Your task to perform on an android device: check the backup settings in the google photos Image 0: 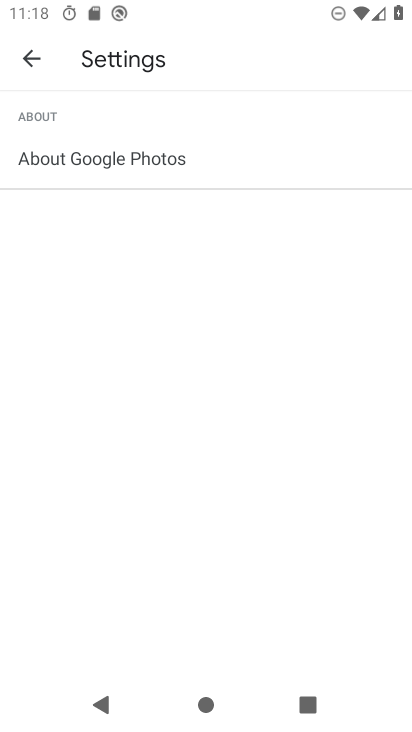
Step 0: press home button
Your task to perform on an android device: check the backup settings in the google photos Image 1: 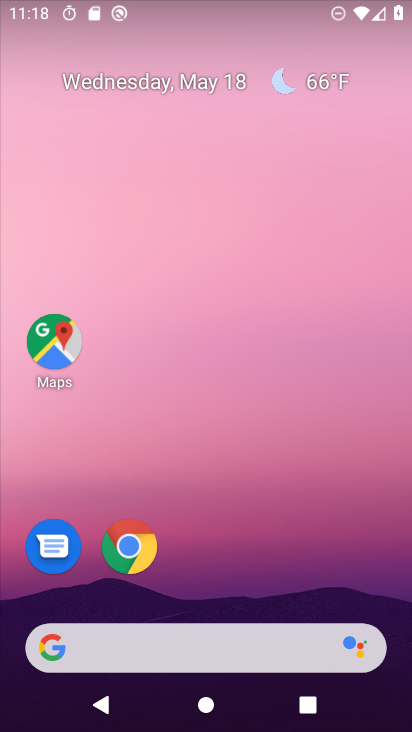
Step 1: drag from (204, 609) to (343, 74)
Your task to perform on an android device: check the backup settings in the google photos Image 2: 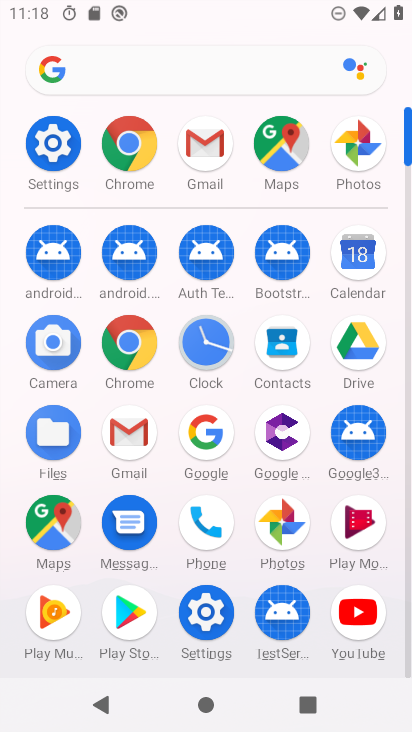
Step 2: click (299, 518)
Your task to perform on an android device: check the backup settings in the google photos Image 3: 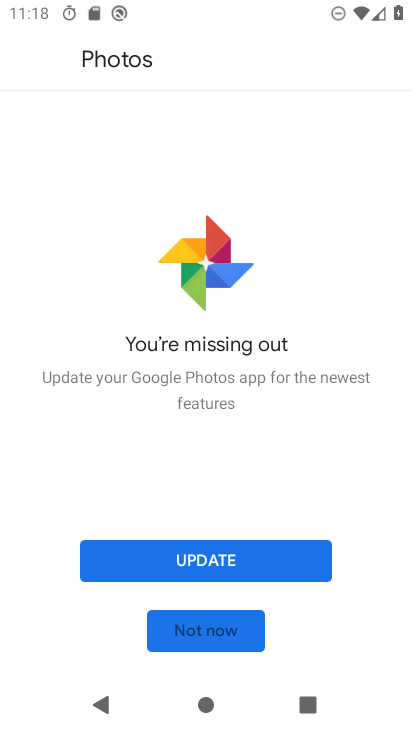
Step 3: click (191, 633)
Your task to perform on an android device: check the backup settings in the google photos Image 4: 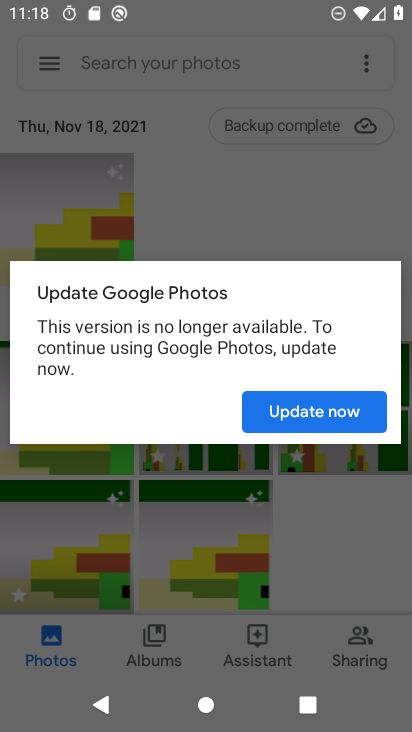
Step 4: click (309, 410)
Your task to perform on an android device: check the backup settings in the google photos Image 5: 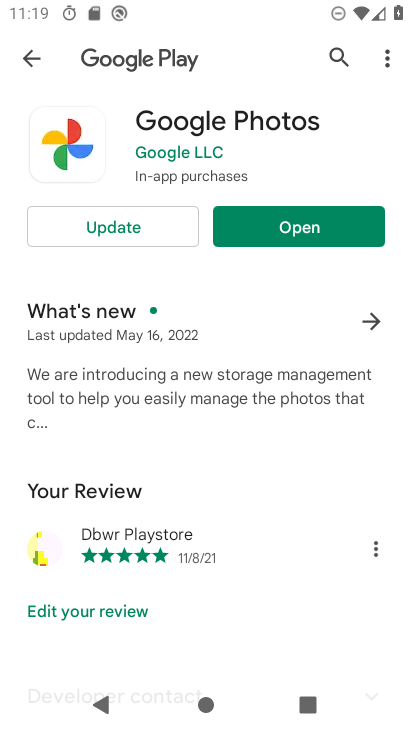
Step 5: click (278, 229)
Your task to perform on an android device: check the backup settings in the google photos Image 6: 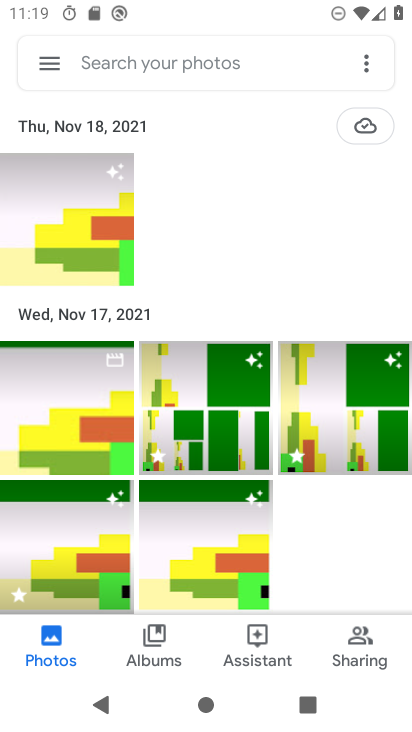
Step 6: click (368, 50)
Your task to perform on an android device: check the backup settings in the google photos Image 7: 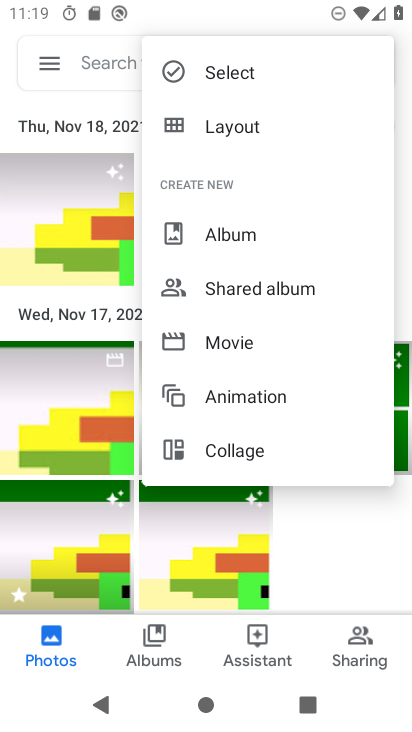
Step 7: click (65, 121)
Your task to perform on an android device: check the backup settings in the google photos Image 8: 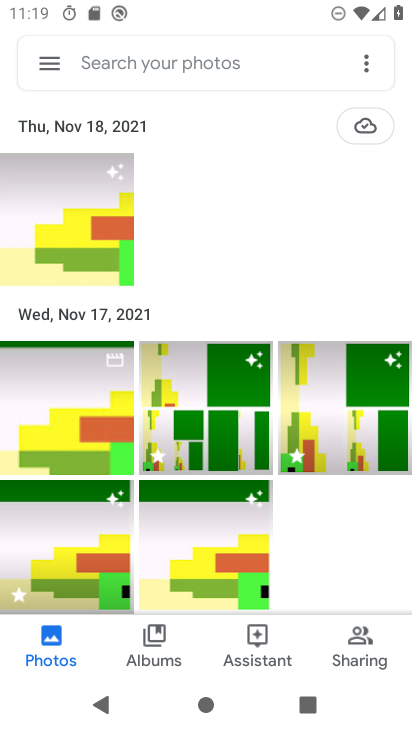
Step 8: click (48, 69)
Your task to perform on an android device: check the backup settings in the google photos Image 9: 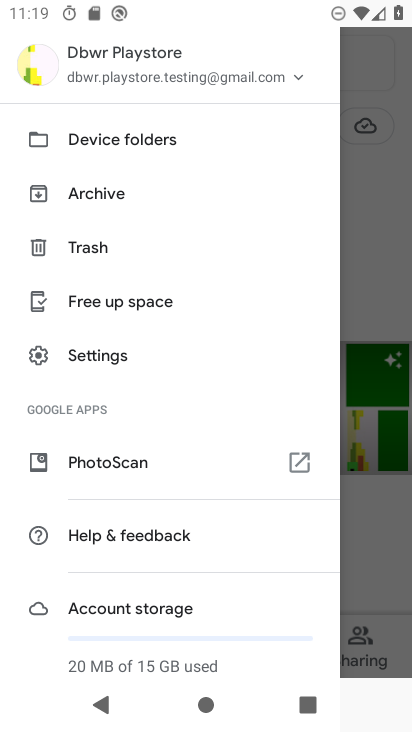
Step 9: click (96, 360)
Your task to perform on an android device: check the backup settings in the google photos Image 10: 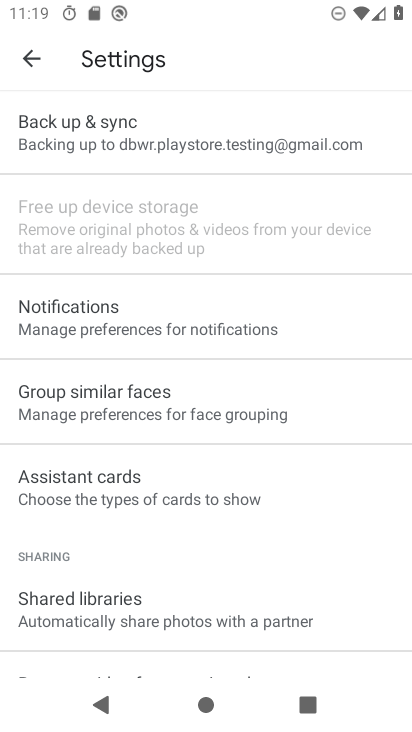
Step 10: click (150, 144)
Your task to perform on an android device: check the backup settings in the google photos Image 11: 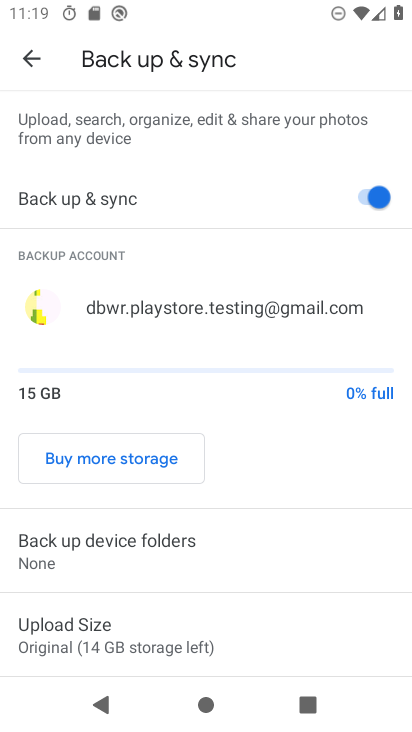
Step 11: drag from (134, 656) to (200, 477)
Your task to perform on an android device: check the backup settings in the google photos Image 12: 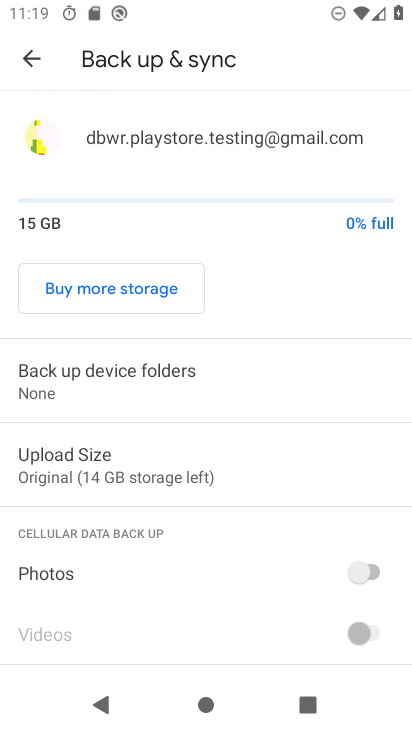
Step 12: click (157, 474)
Your task to perform on an android device: check the backup settings in the google photos Image 13: 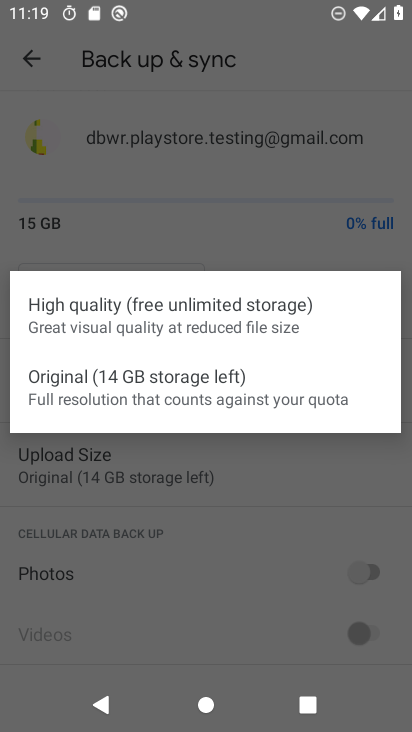
Step 13: click (114, 312)
Your task to perform on an android device: check the backup settings in the google photos Image 14: 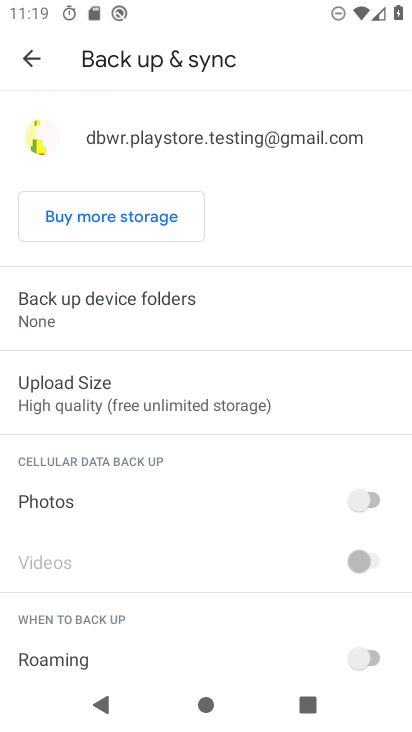
Step 14: task complete